Your task to perform on an android device: delete location history Image 0: 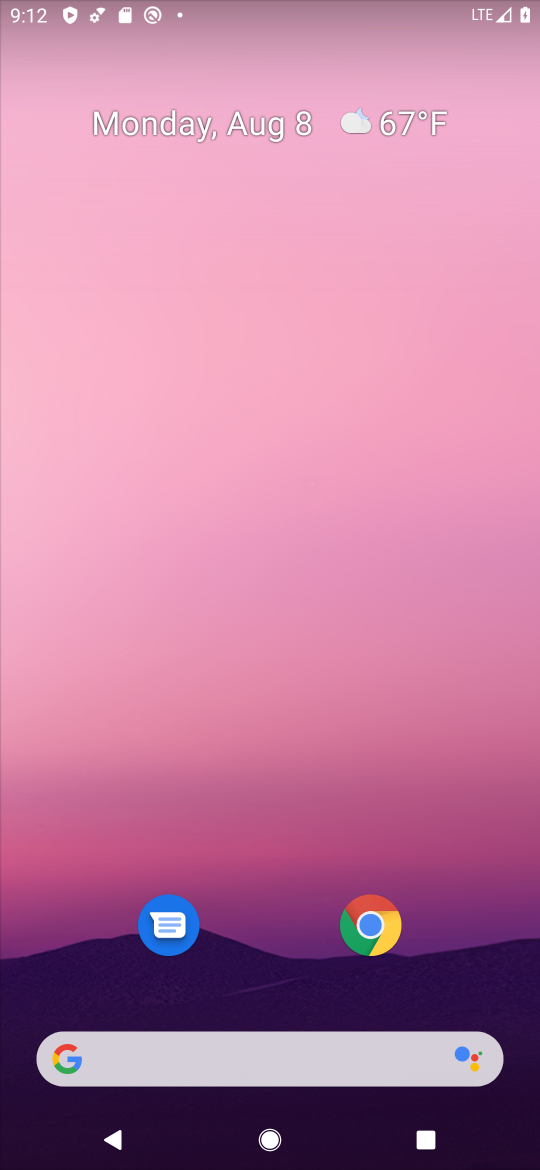
Step 0: drag from (257, 932) to (276, 83)
Your task to perform on an android device: delete location history Image 1: 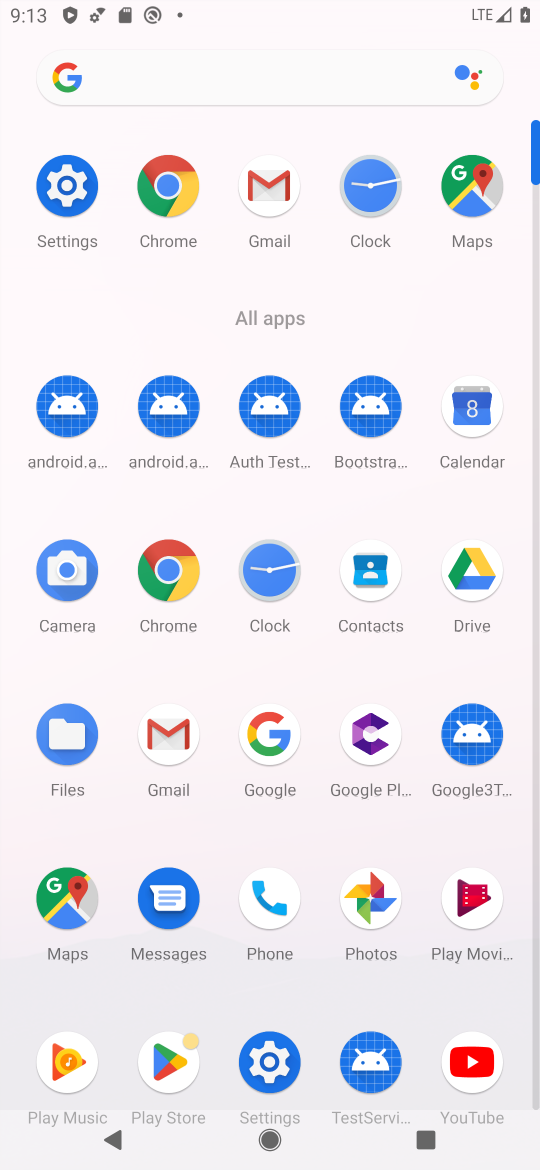
Step 1: click (74, 883)
Your task to perform on an android device: delete location history Image 2: 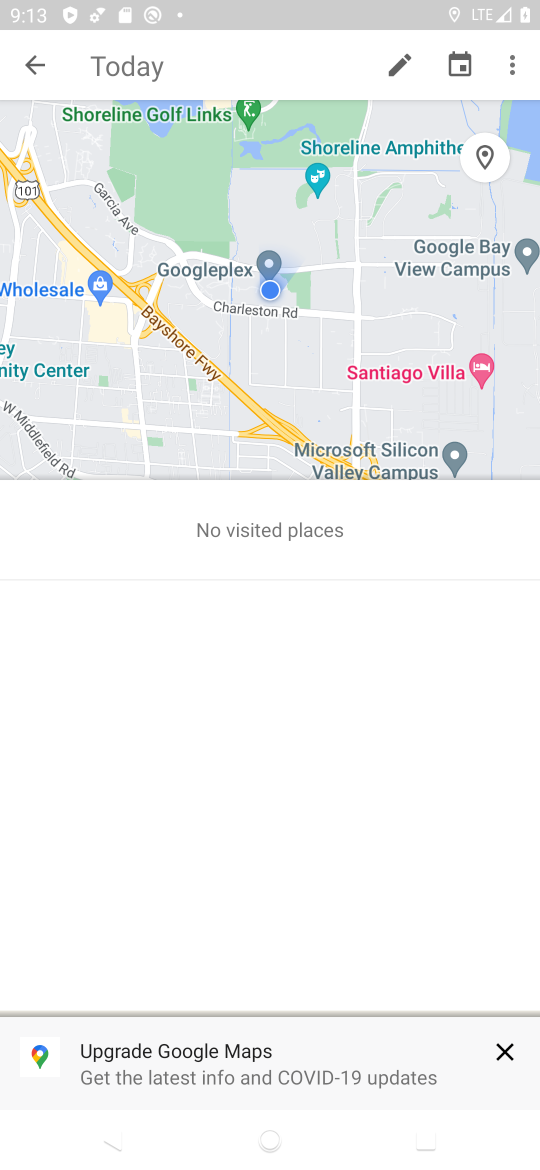
Step 2: press back button
Your task to perform on an android device: delete location history Image 3: 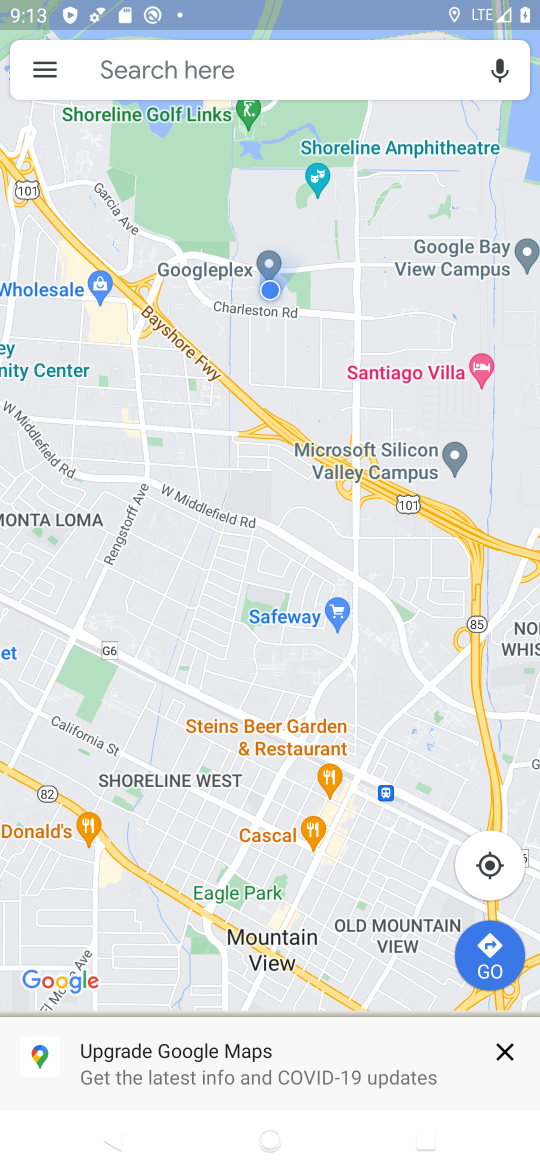
Step 3: click (40, 57)
Your task to perform on an android device: delete location history Image 4: 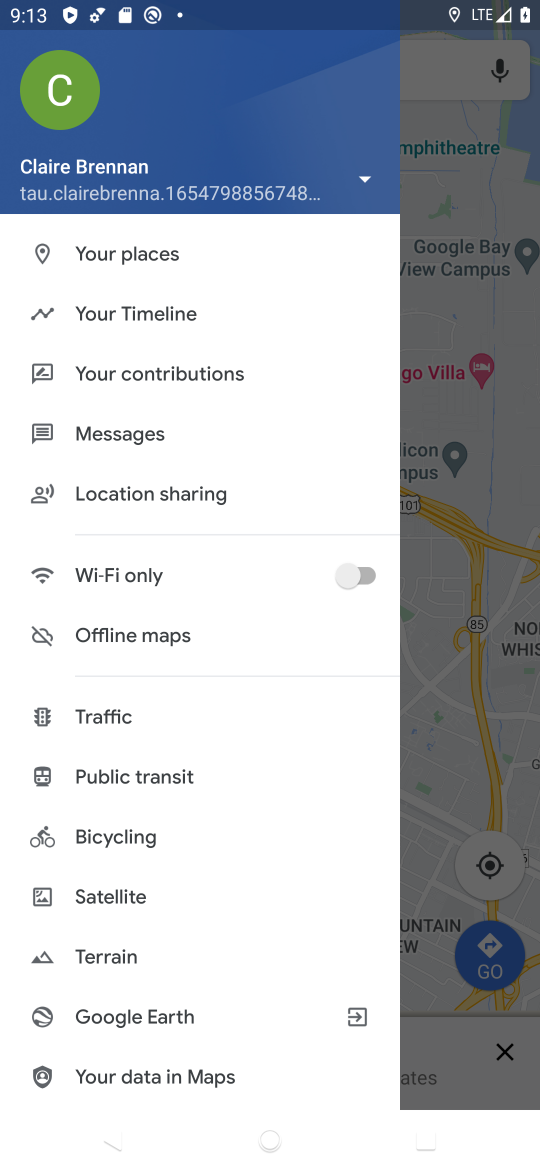
Step 4: drag from (138, 921) to (213, 277)
Your task to perform on an android device: delete location history Image 5: 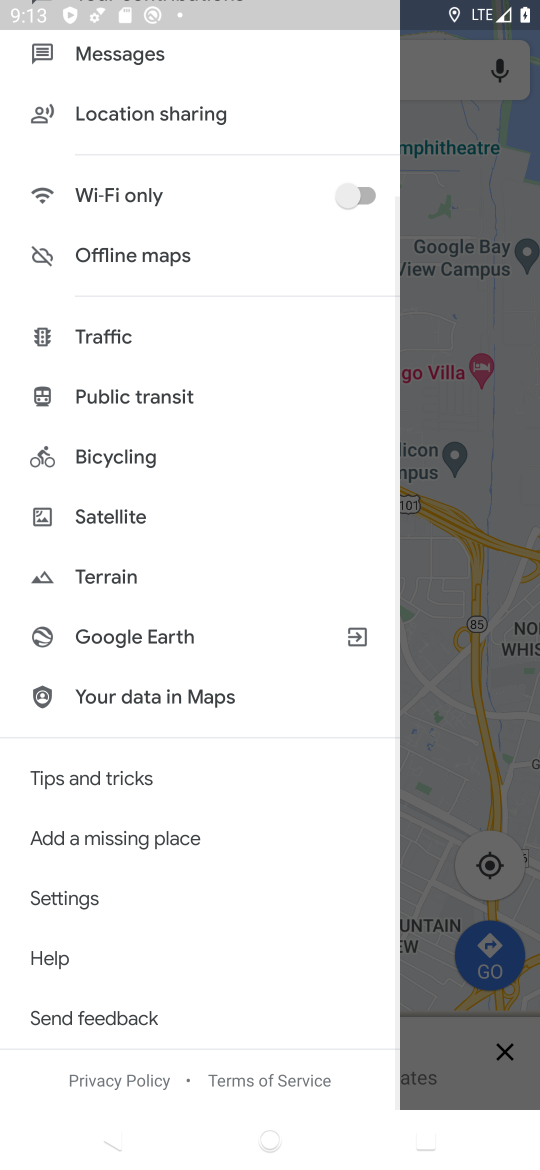
Step 5: click (82, 895)
Your task to perform on an android device: delete location history Image 6: 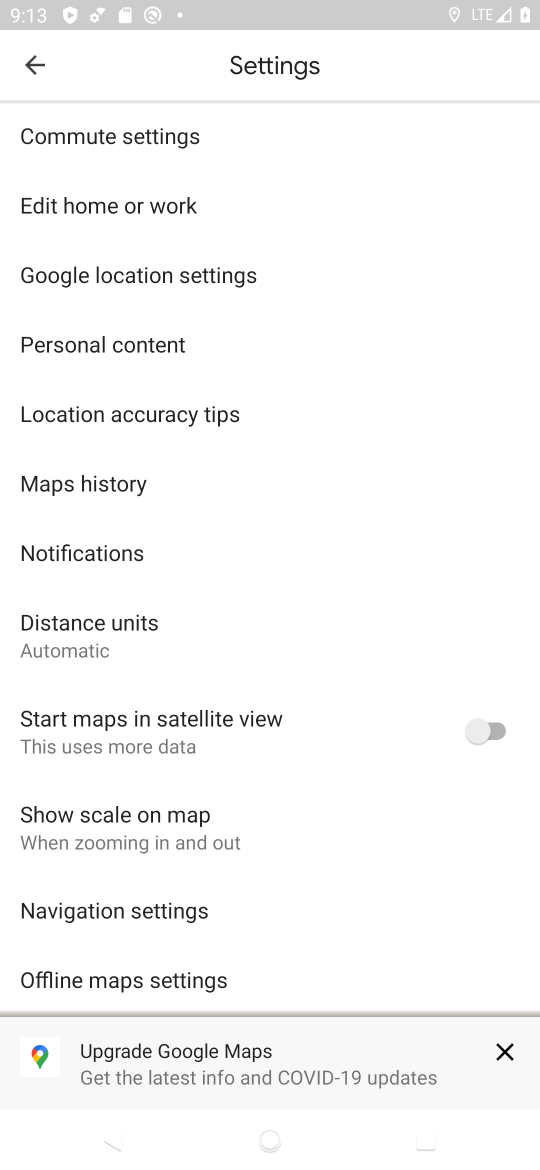
Step 6: click (92, 466)
Your task to perform on an android device: delete location history Image 7: 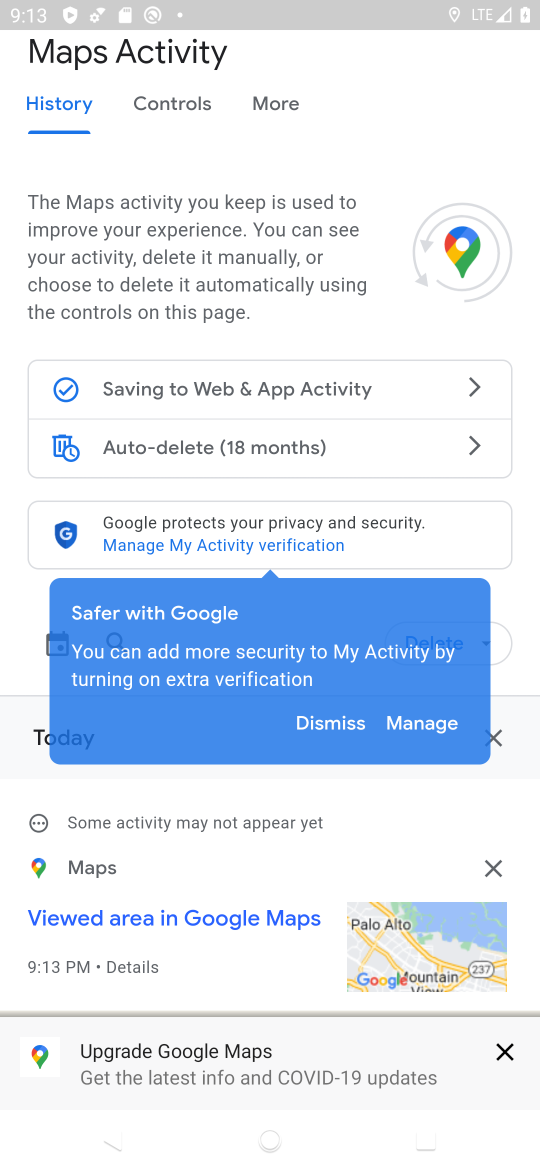
Step 7: click (449, 651)
Your task to perform on an android device: delete location history Image 8: 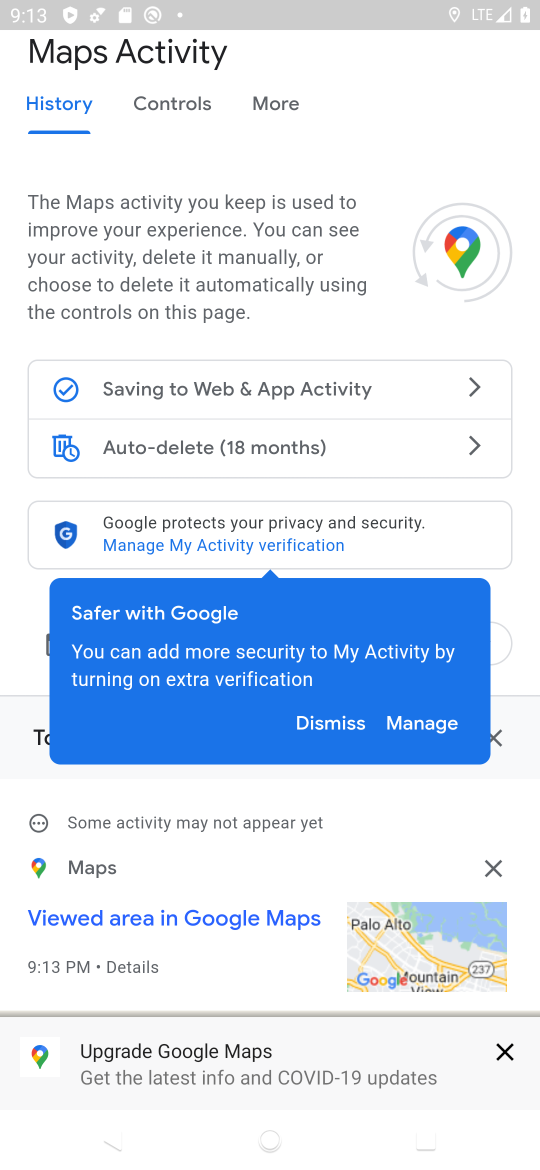
Step 8: click (302, 721)
Your task to perform on an android device: delete location history Image 9: 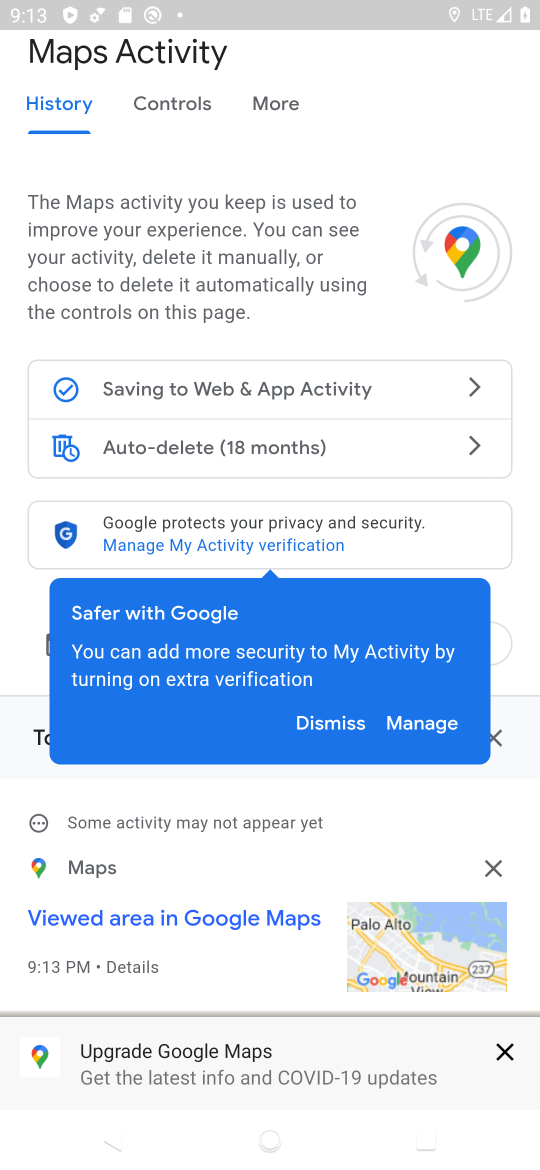
Step 9: click (280, 763)
Your task to perform on an android device: delete location history Image 10: 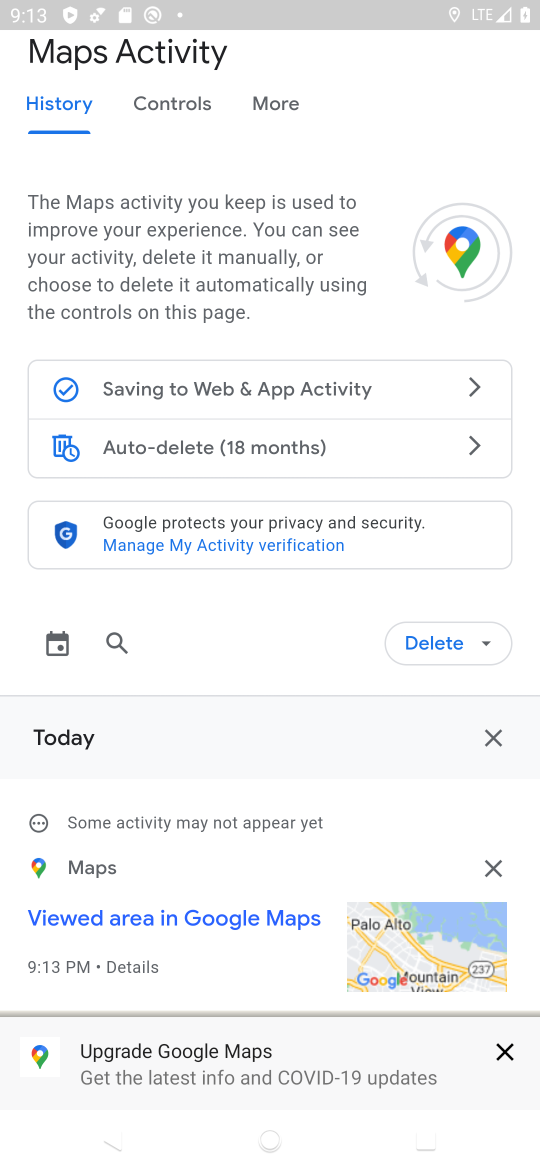
Step 10: click (460, 642)
Your task to perform on an android device: delete location history Image 11: 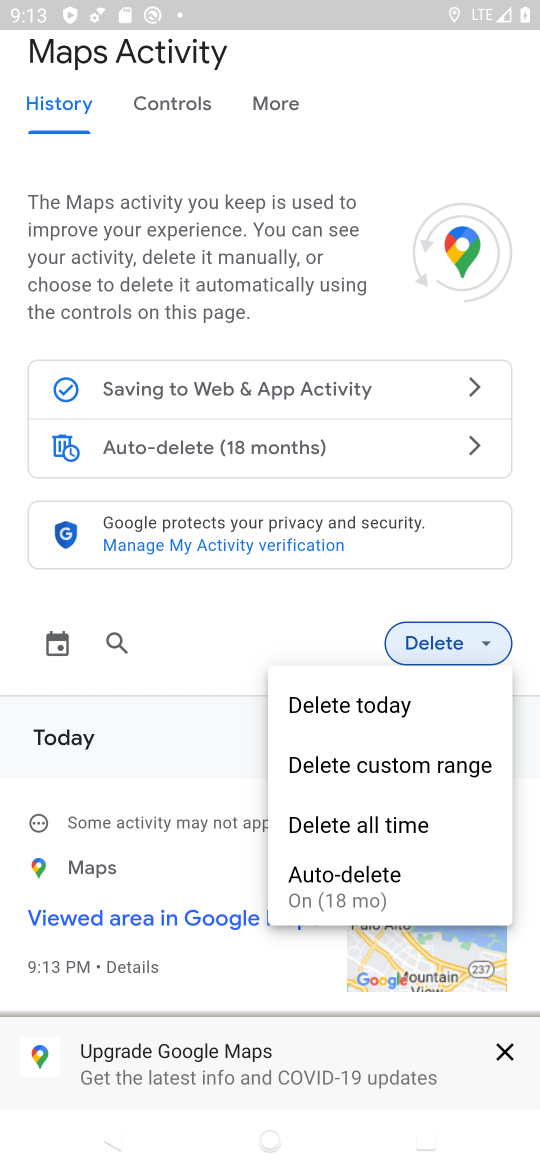
Step 11: click (489, 630)
Your task to perform on an android device: delete location history Image 12: 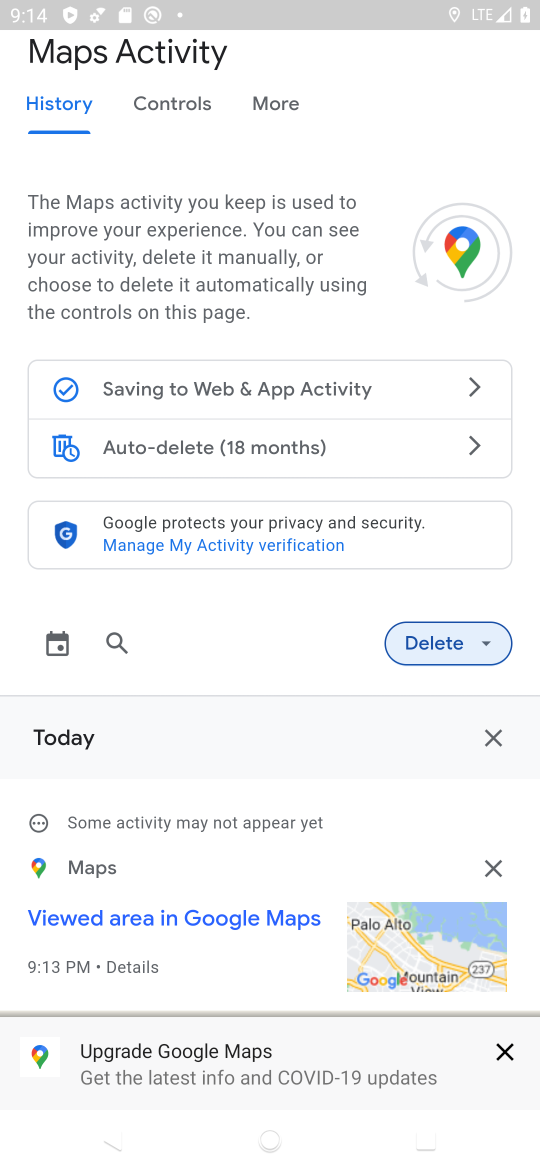
Step 12: click (472, 634)
Your task to perform on an android device: delete location history Image 13: 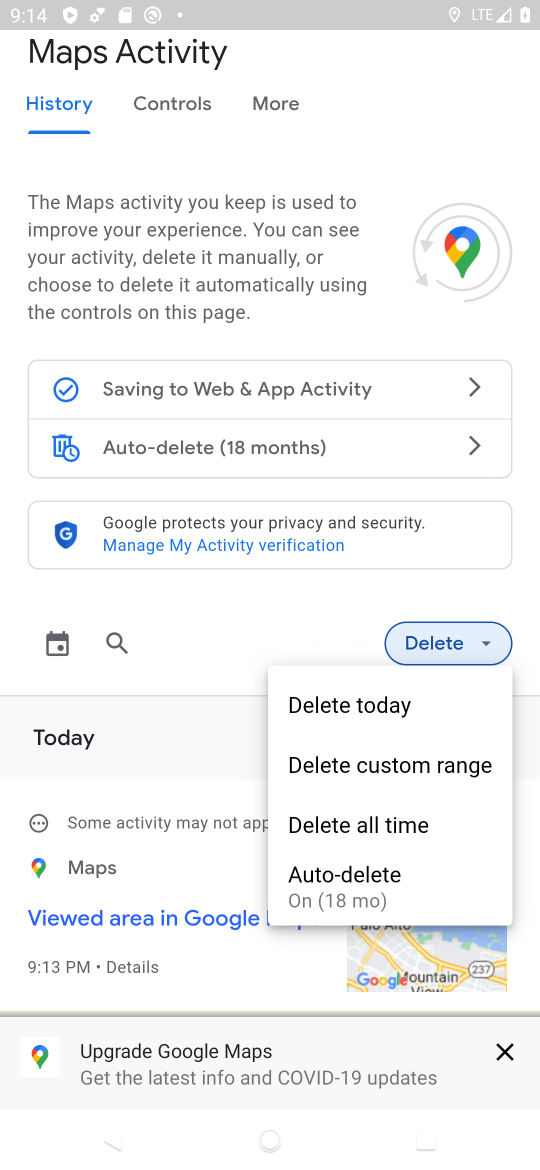
Step 13: click (339, 826)
Your task to perform on an android device: delete location history Image 14: 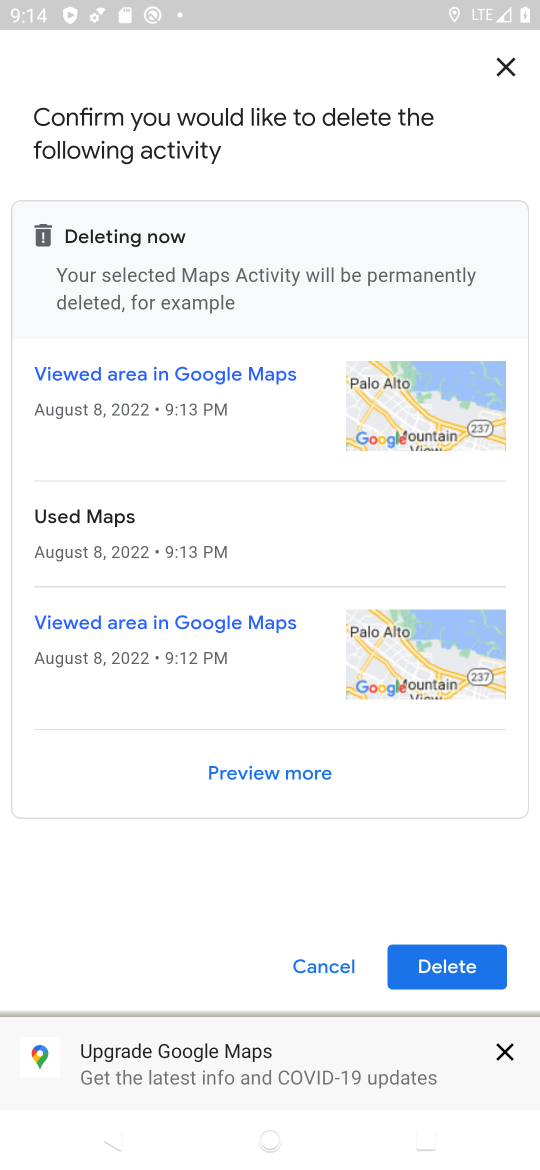
Step 14: click (467, 958)
Your task to perform on an android device: delete location history Image 15: 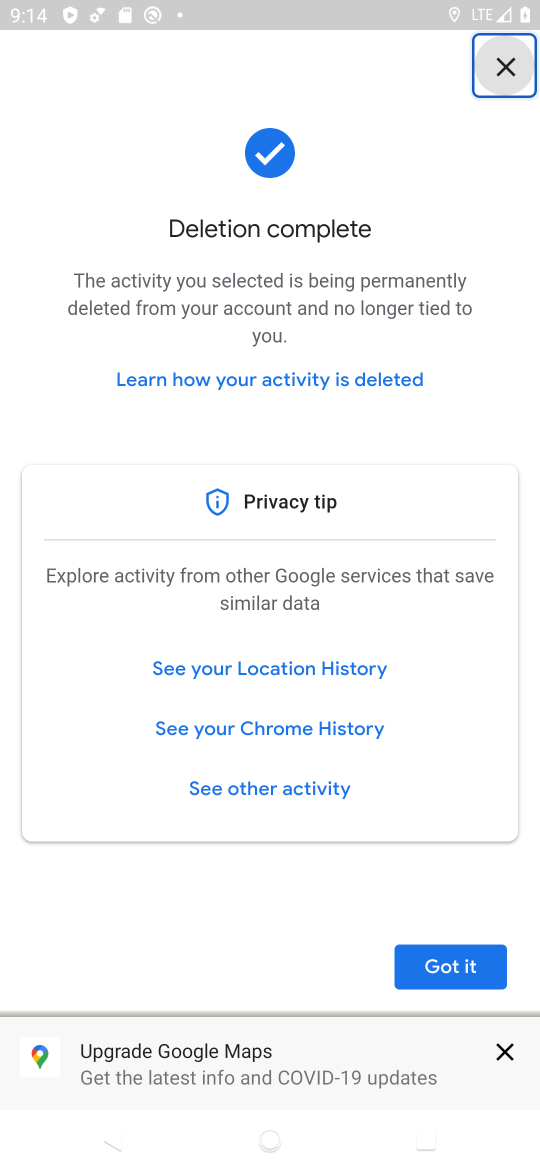
Step 15: click (468, 957)
Your task to perform on an android device: delete location history Image 16: 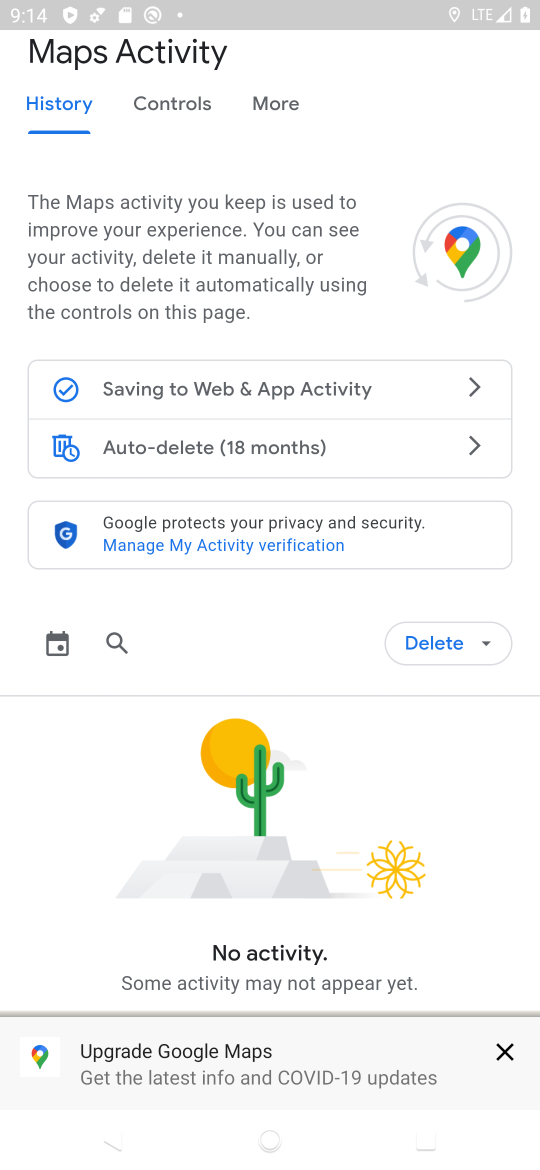
Step 16: task complete